Your task to perform on an android device: open a bookmark in the chrome app Image 0: 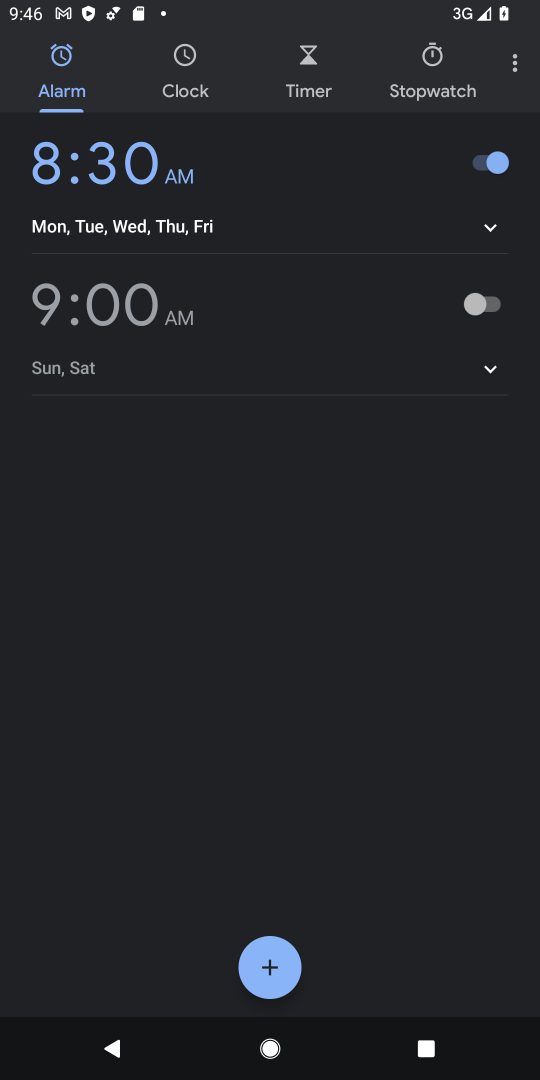
Step 0: press home button
Your task to perform on an android device: open a bookmark in the chrome app Image 1: 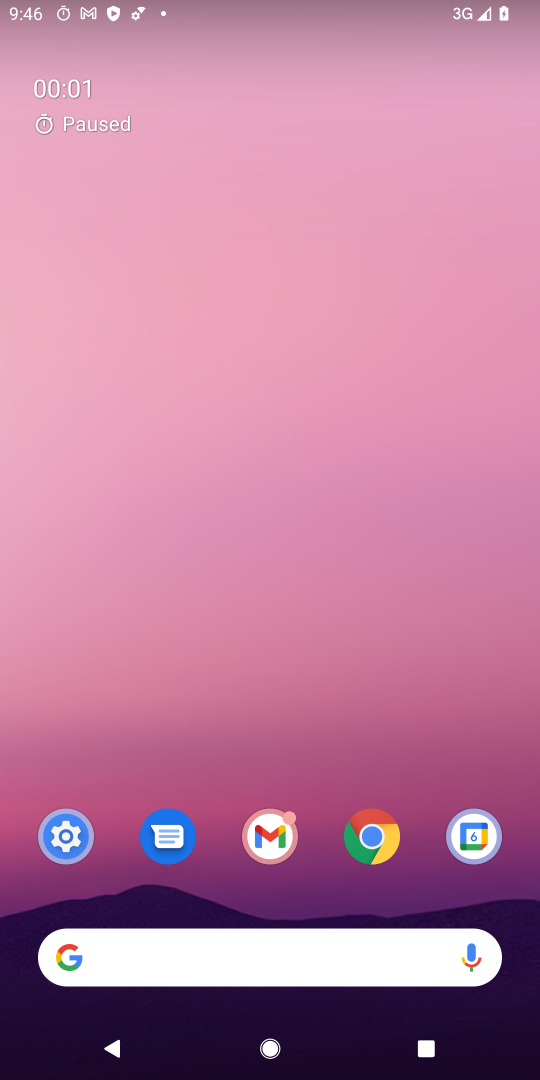
Step 1: drag from (389, 916) to (217, 105)
Your task to perform on an android device: open a bookmark in the chrome app Image 2: 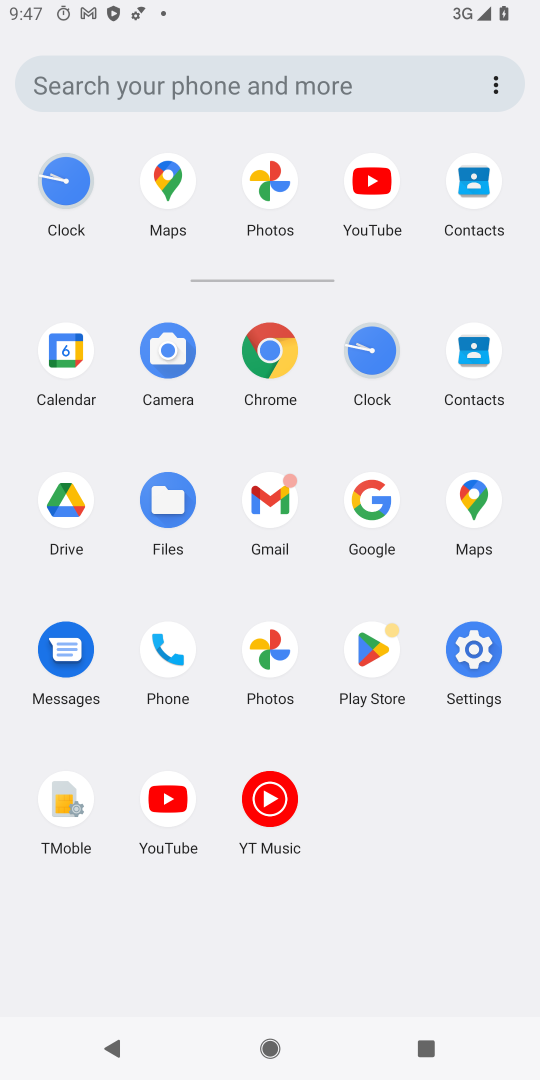
Step 2: click (278, 357)
Your task to perform on an android device: open a bookmark in the chrome app Image 3: 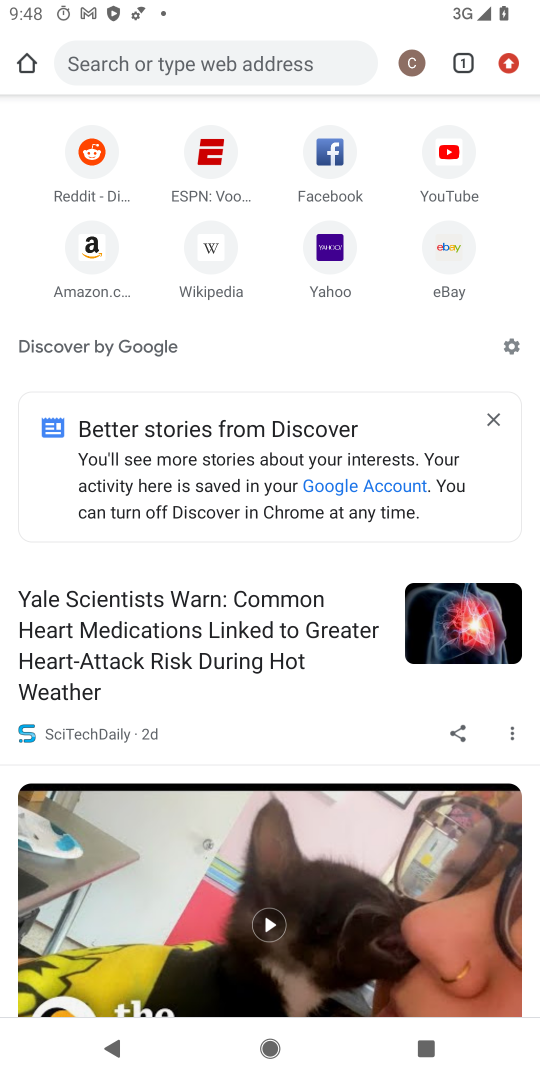
Step 3: click (506, 62)
Your task to perform on an android device: open a bookmark in the chrome app Image 4: 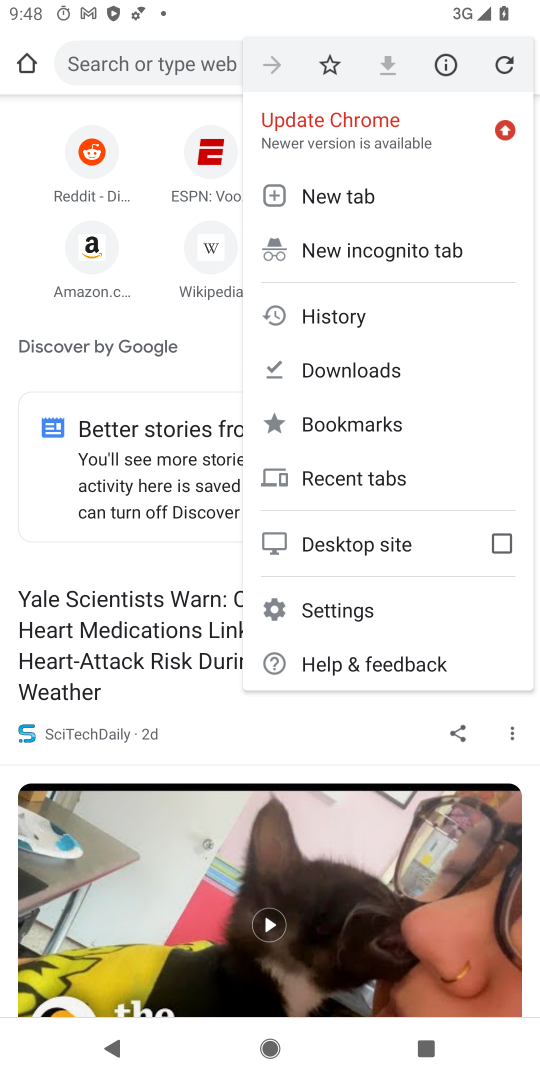
Step 4: click (370, 439)
Your task to perform on an android device: open a bookmark in the chrome app Image 5: 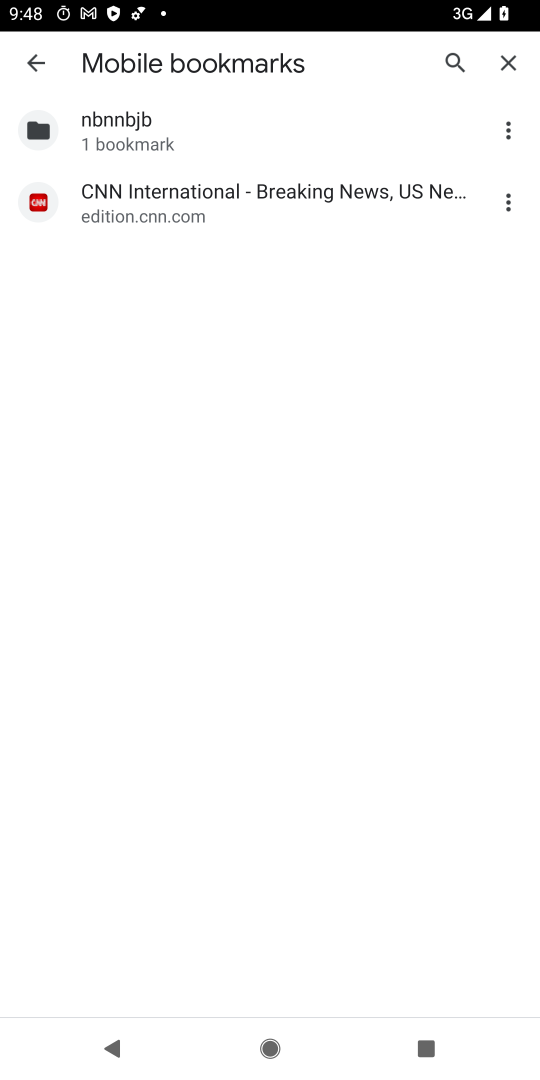
Step 5: task complete